Your task to perform on an android device: Open Wikipedia Image 0: 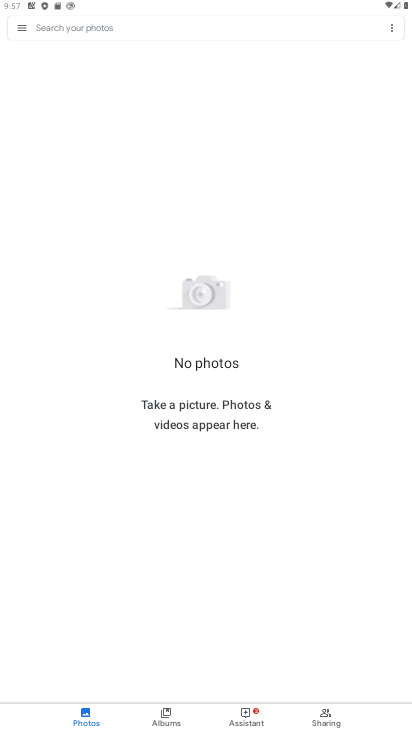
Step 0: press home button
Your task to perform on an android device: Open Wikipedia Image 1: 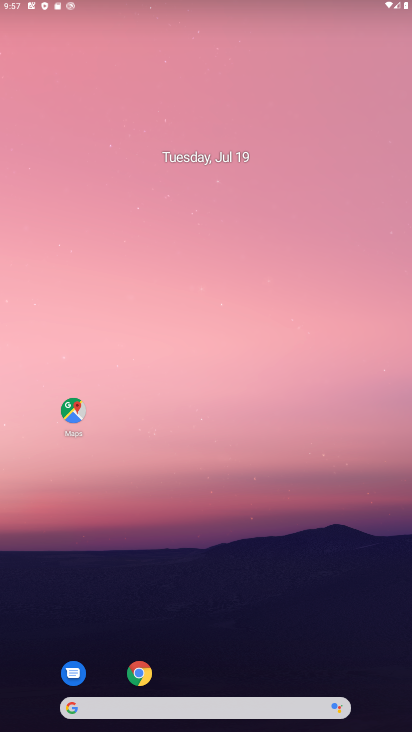
Step 1: click (234, 641)
Your task to perform on an android device: Open Wikipedia Image 2: 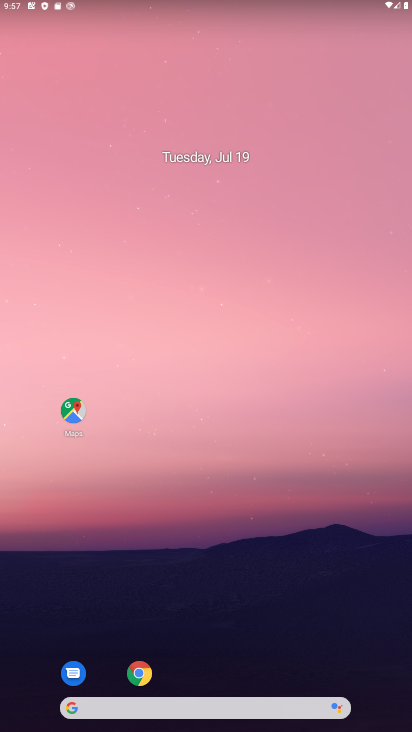
Step 2: click (150, 674)
Your task to perform on an android device: Open Wikipedia Image 3: 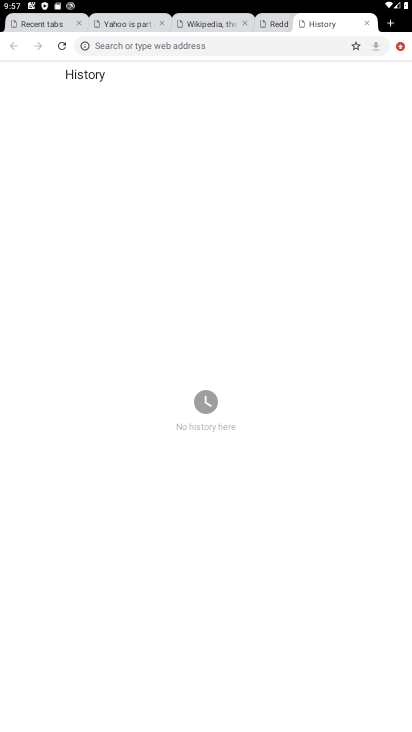
Step 3: click (389, 23)
Your task to perform on an android device: Open Wikipedia Image 4: 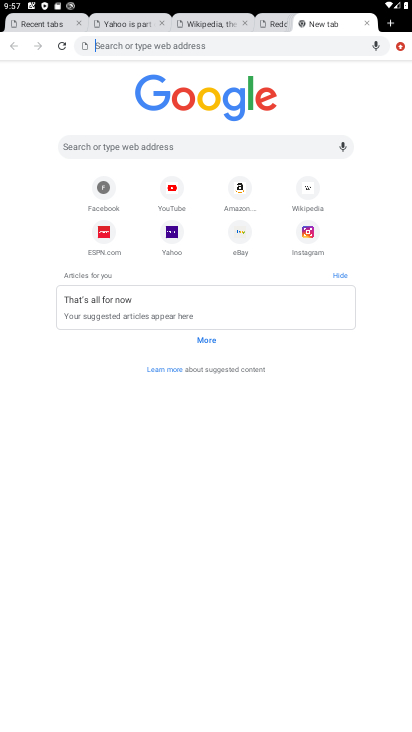
Step 4: click (301, 202)
Your task to perform on an android device: Open Wikipedia Image 5: 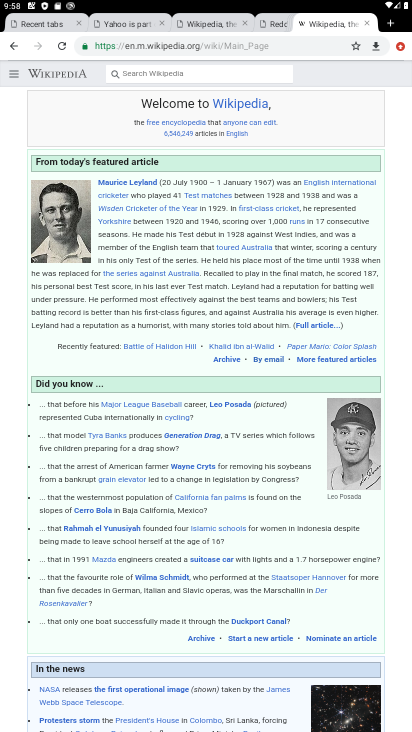
Step 5: task complete